Your task to perform on an android device: install app "Adobe Express: Graphic Design" Image 0: 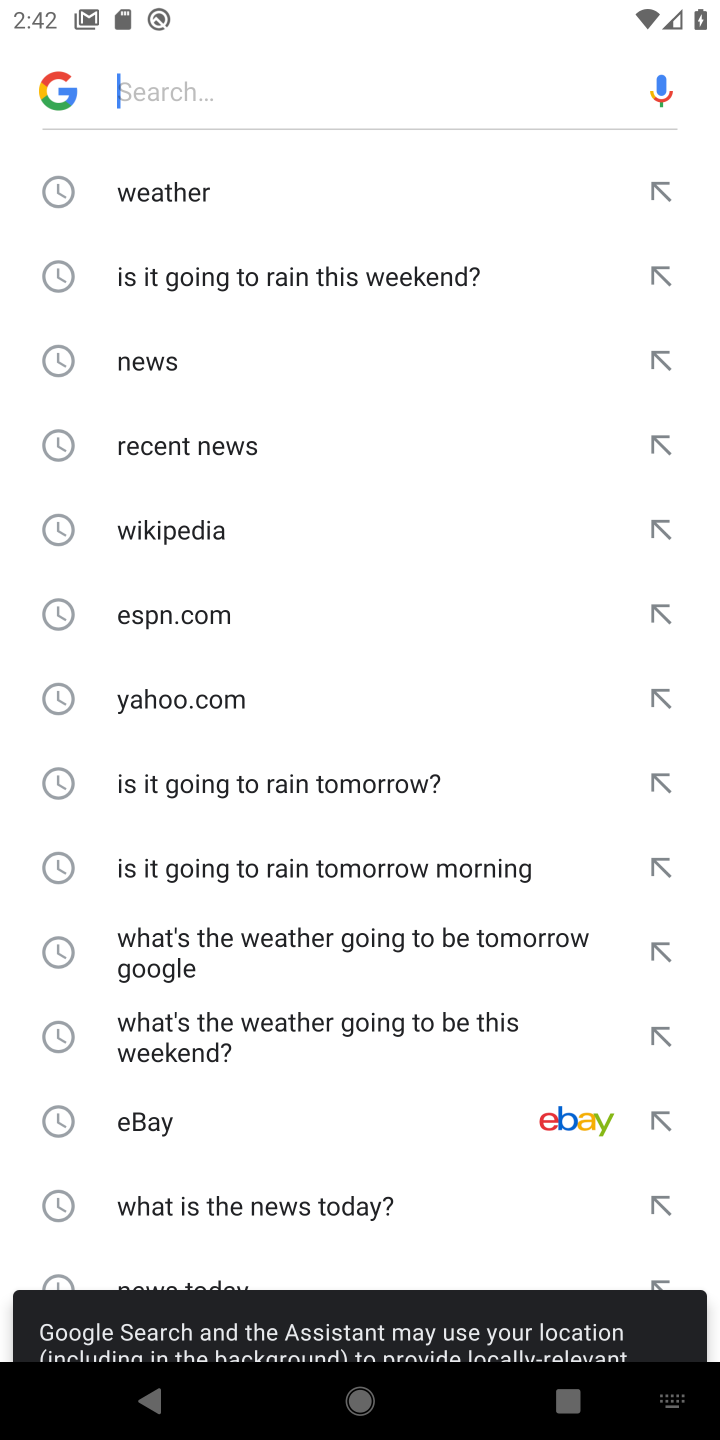
Step 0: press home button
Your task to perform on an android device: install app "Adobe Express: Graphic Design" Image 1: 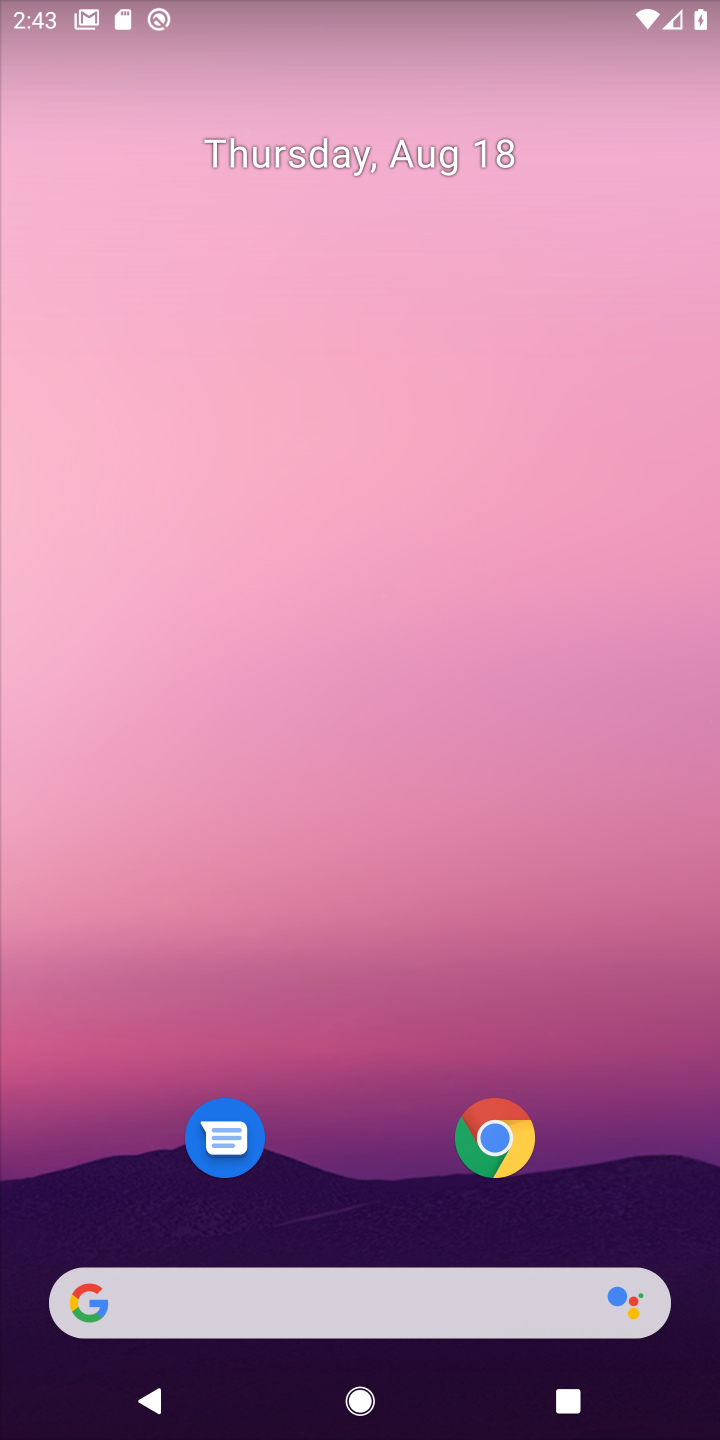
Step 1: drag from (375, 860) to (553, 161)
Your task to perform on an android device: install app "Adobe Express: Graphic Design" Image 2: 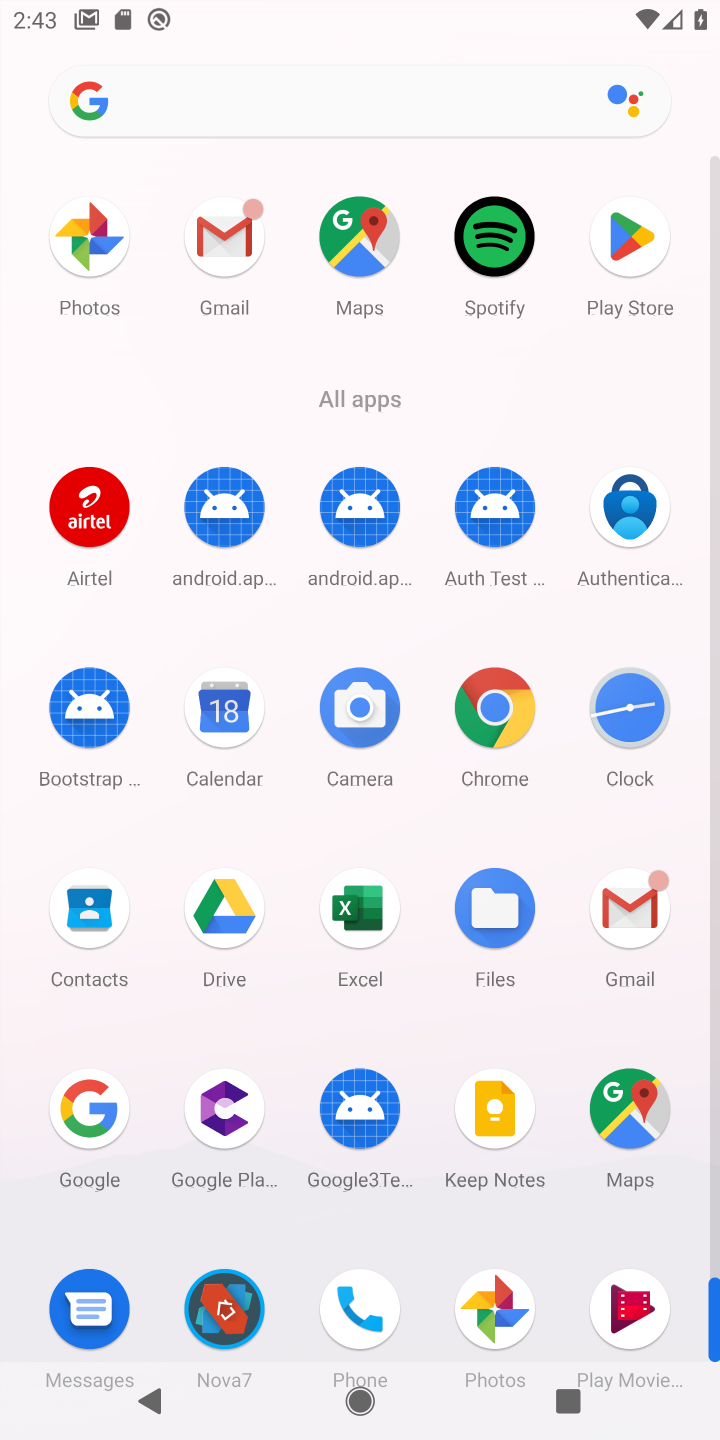
Step 2: click (633, 269)
Your task to perform on an android device: install app "Adobe Express: Graphic Design" Image 3: 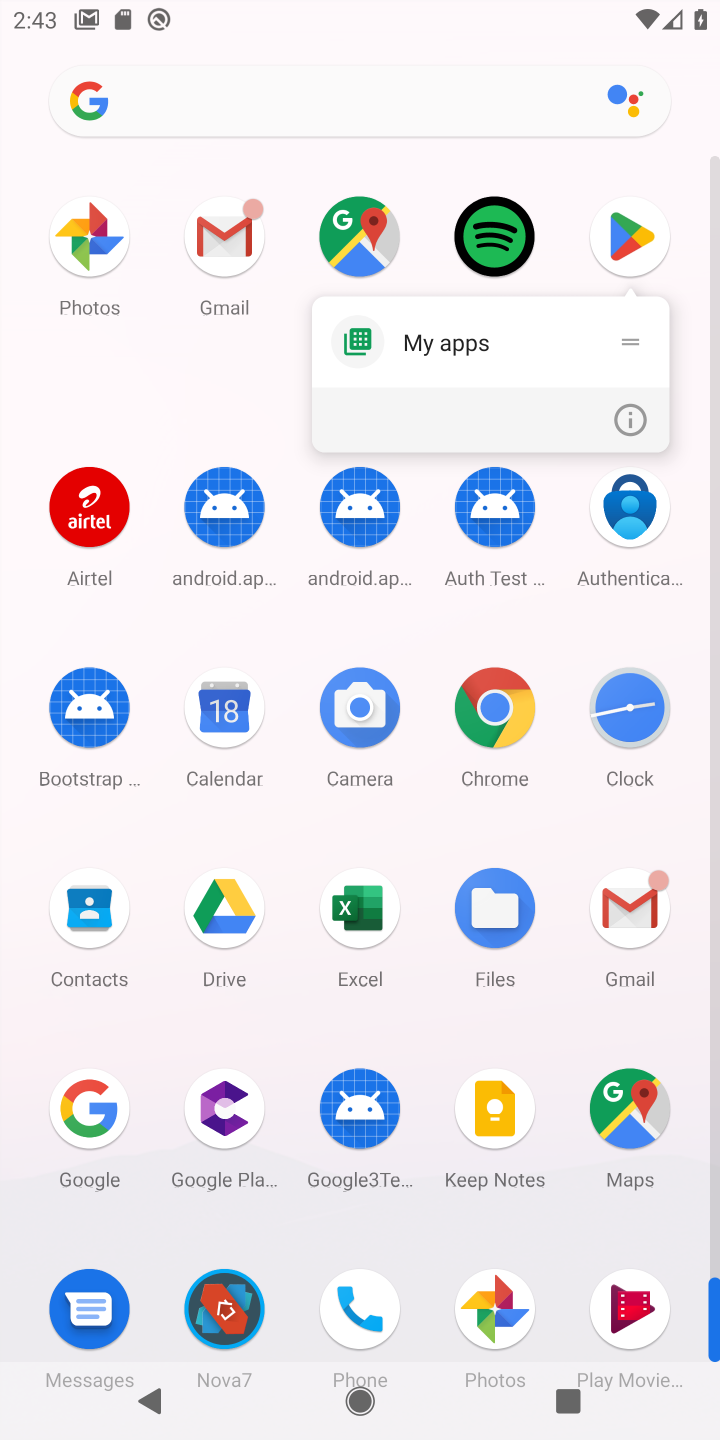
Step 3: click (632, 238)
Your task to perform on an android device: install app "Adobe Express: Graphic Design" Image 4: 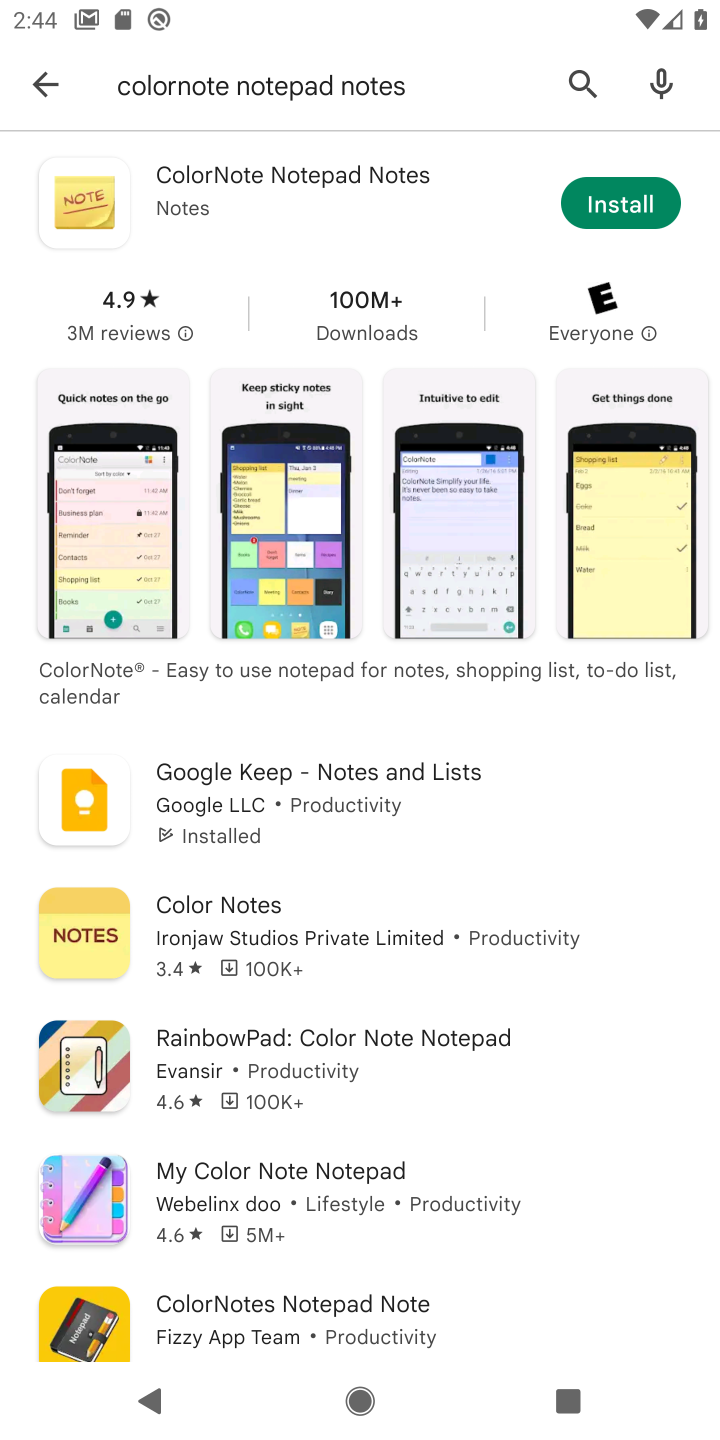
Step 4: click (20, 88)
Your task to perform on an android device: install app "Adobe Express: Graphic Design" Image 5: 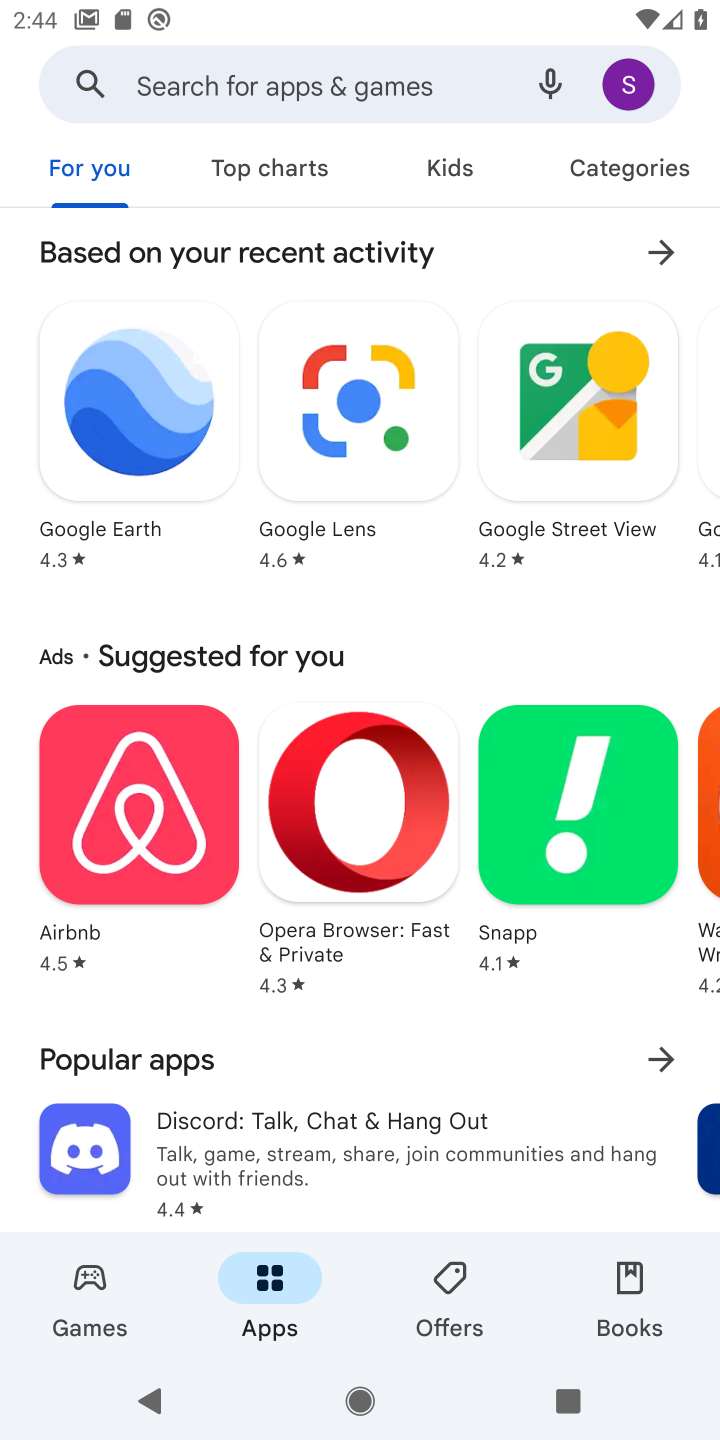
Step 5: click (204, 88)
Your task to perform on an android device: install app "Adobe Express: Graphic Design" Image 6: 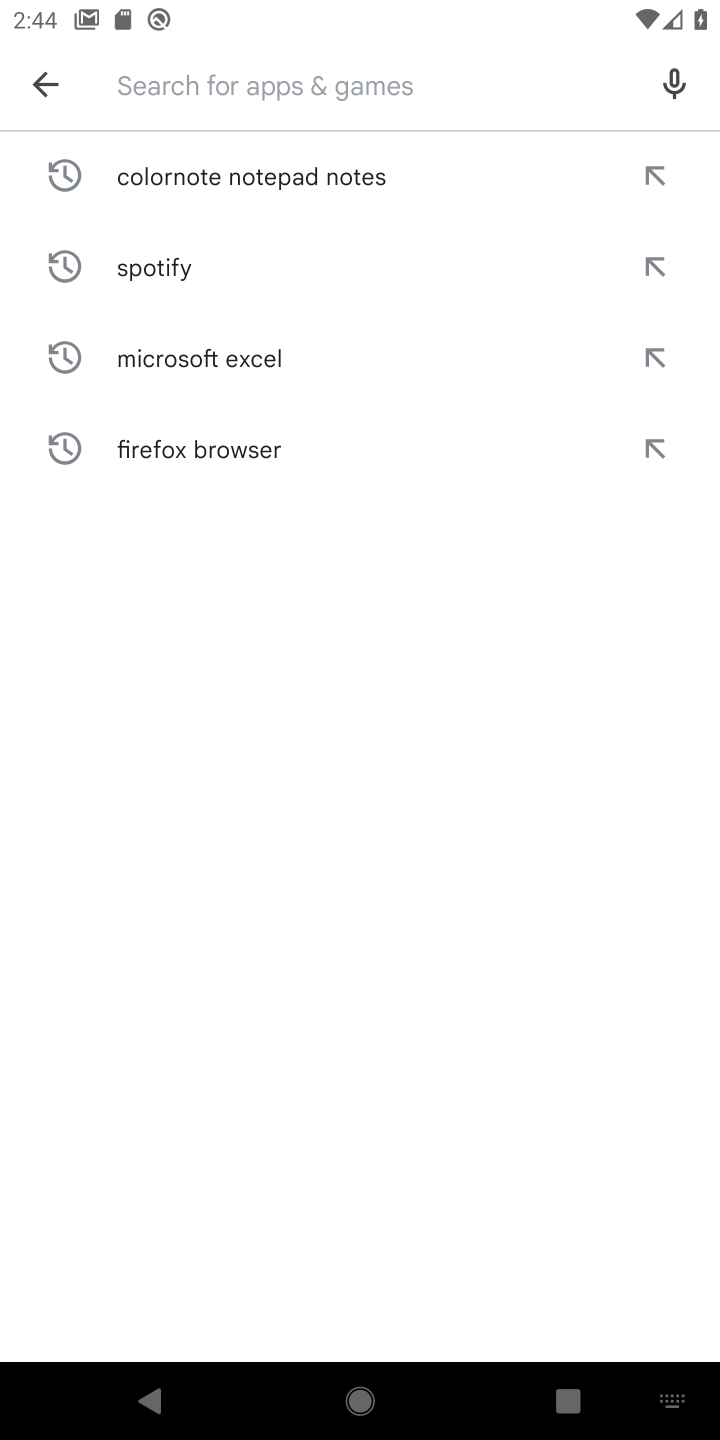
Step 6: type "Adobe Express: Graphic Design"
Your task to perform on an android device: install app "Adobe Express: Graphic Design" Image 7: 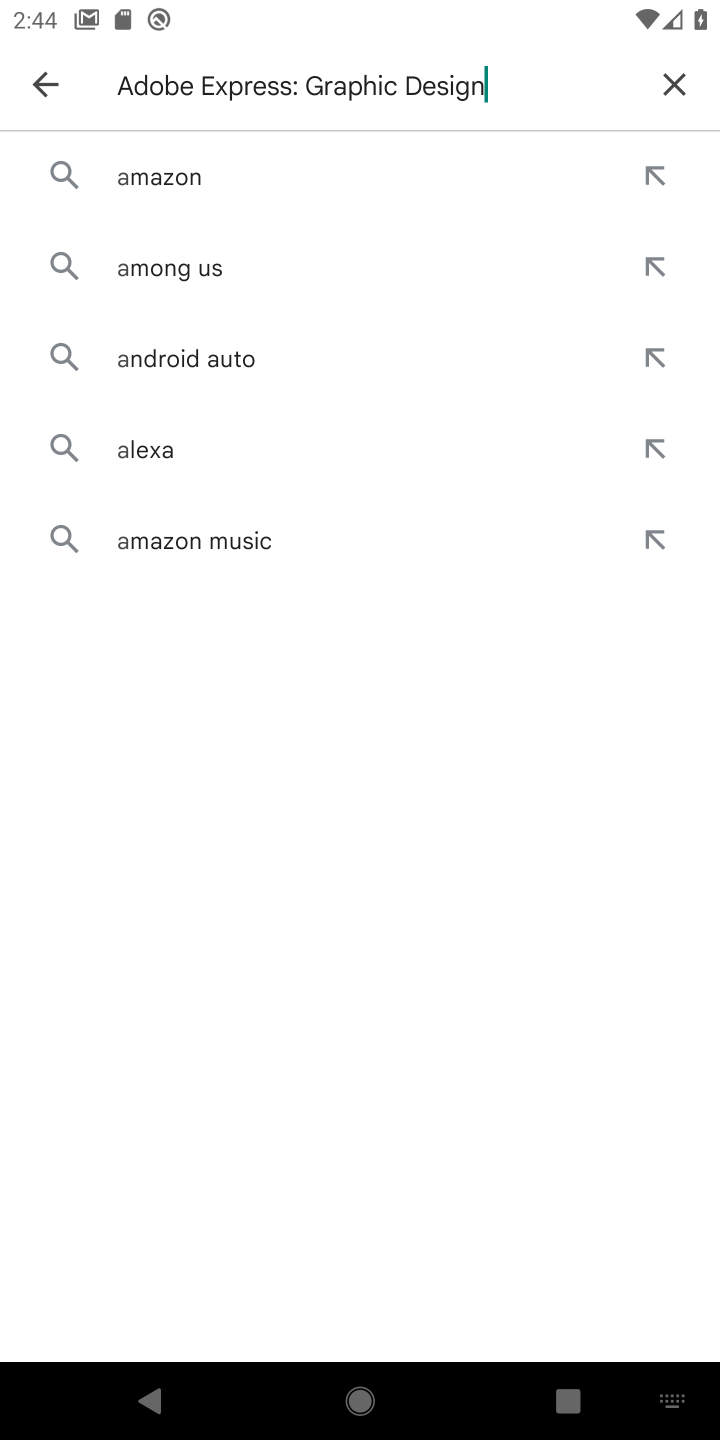
Step 7: type ""
Your task to perform on an android device: install app "Adobe Express: Graphic Design" Image 8: 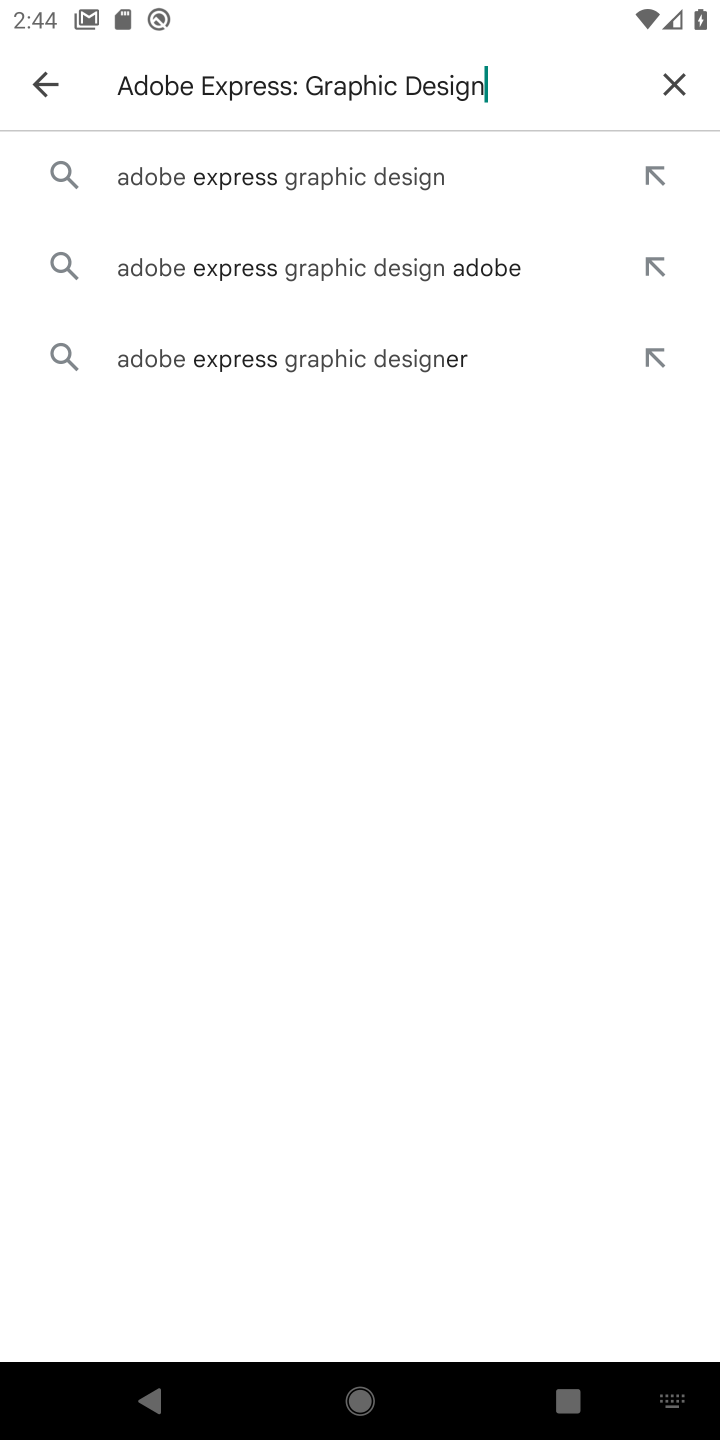
Step 8: click (347, 182)
Your task to perform on an android device: install app "Adobe Express: Graphic Design" Image 9: 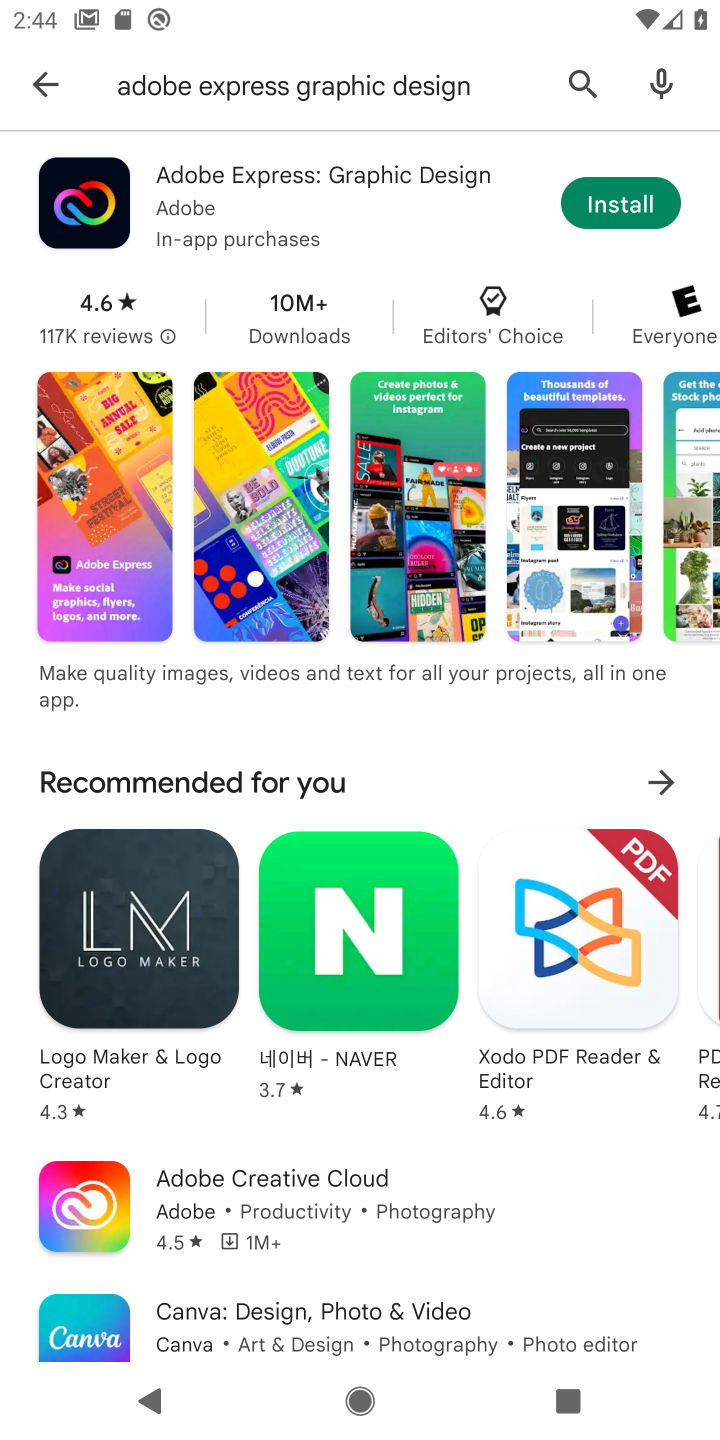
Step 9: click (630, 215)
Your task to perform on an android device: install app "Adobe Express: Graphic Design" Image 10: 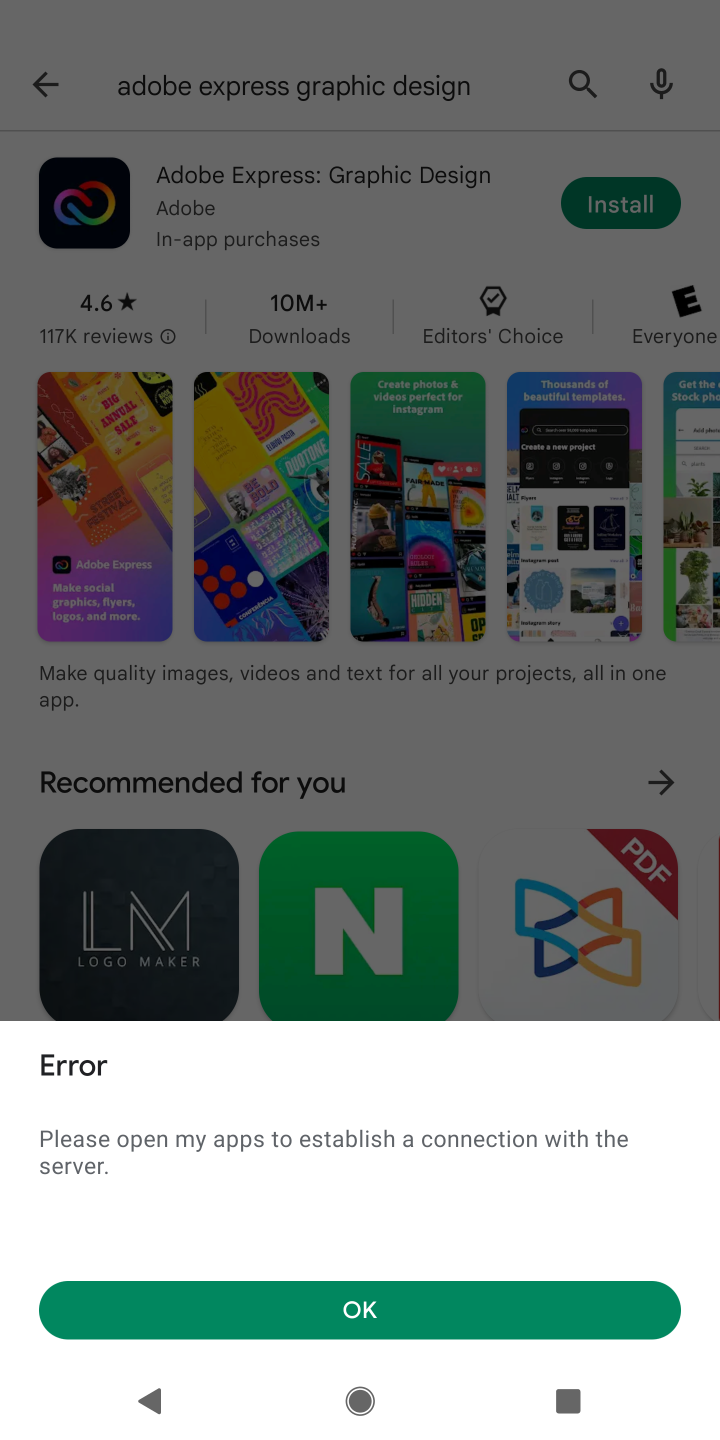
Step 10: click (467, 1328)
Your task to perform on an android device: install app "Adobe Express: Graphic Design" Image 11: 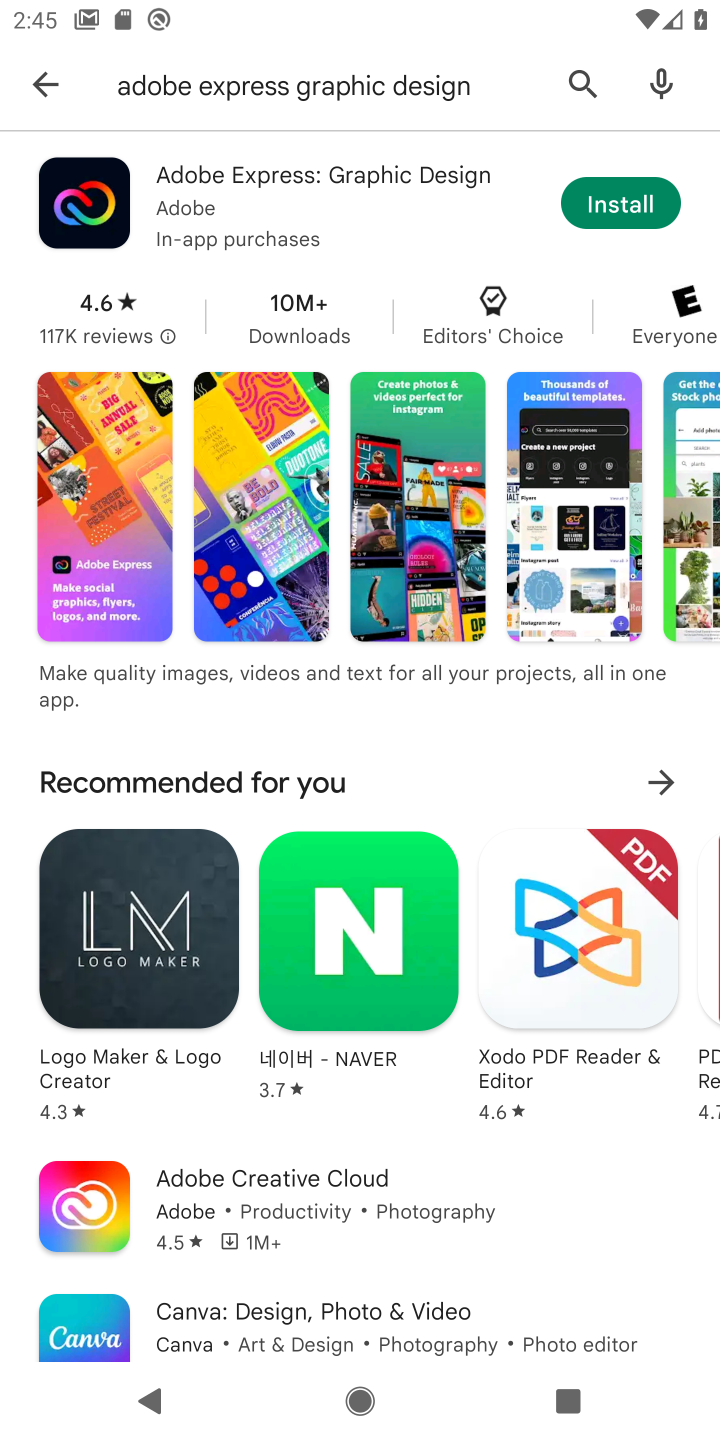
Step 11: click (642, 219)
Your task to perform on an android device: install app "Adobe Express: Graphic Design" Image 12: 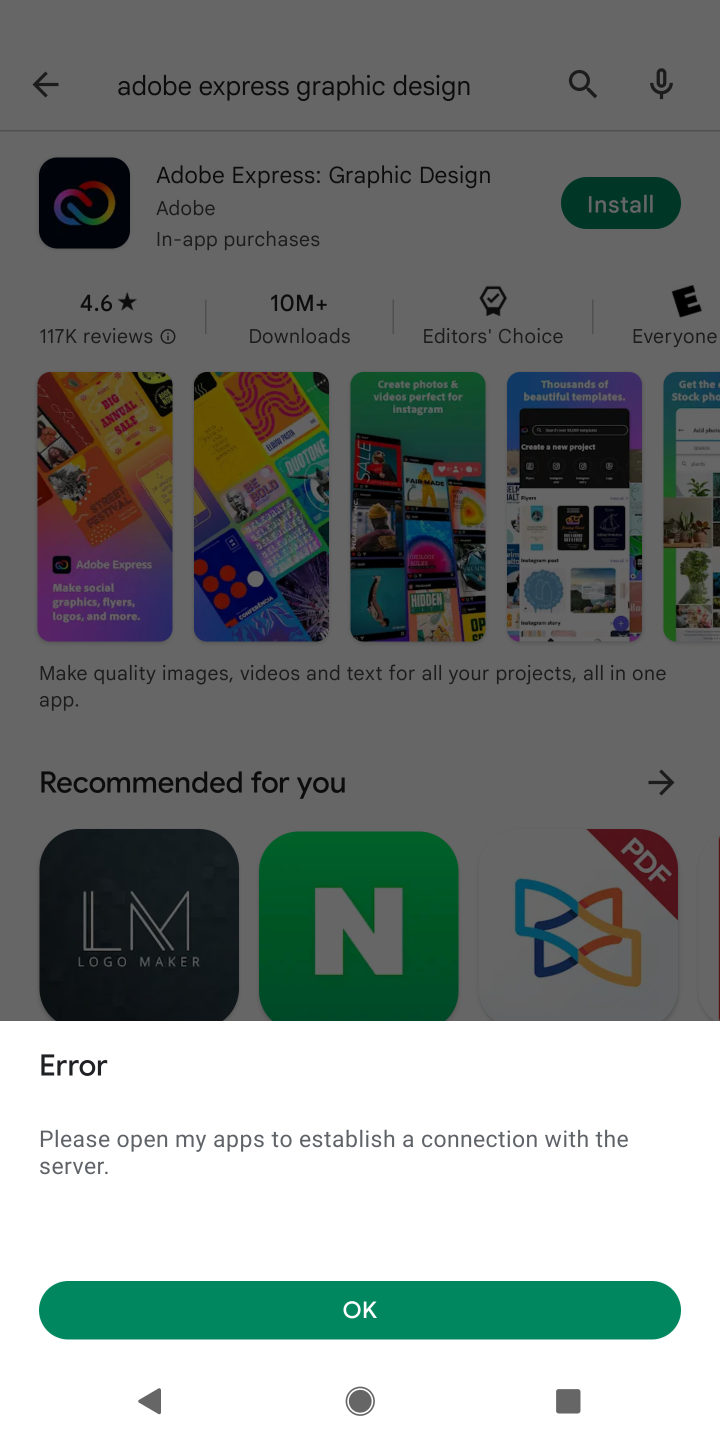
Step 12: task complete